Your task to perform on an android device: Show me productivity apps on the Play Store Image 0: 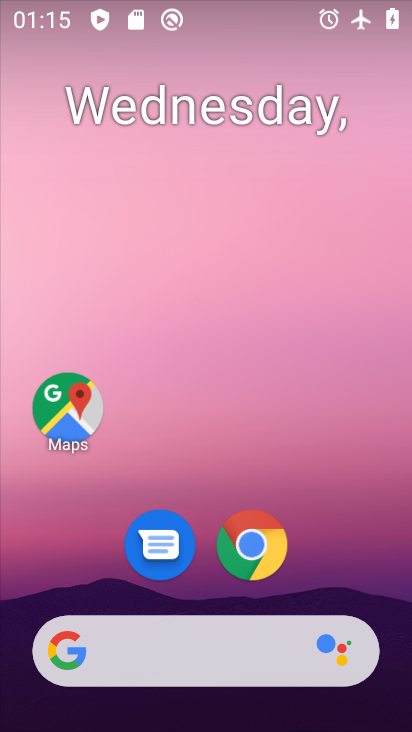
Step 0: drag from (333, 577) to (252, 120)
Your task to perform on an android device: Show me productivity apps on the Play Store Image 1: 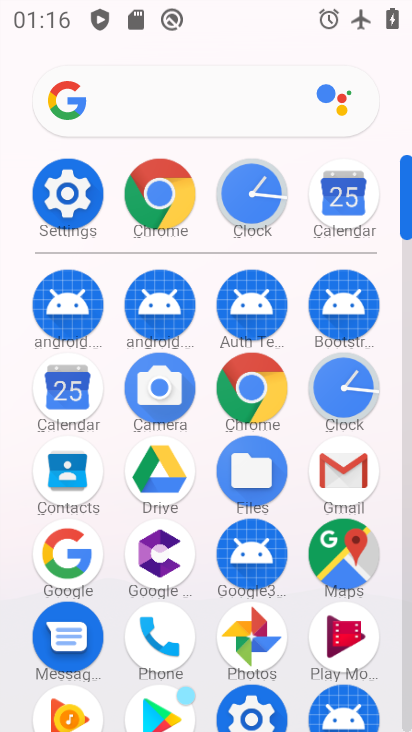
Step 1: drag from (207, 581) to (196, 79)
Your task to perform on an android device: Show me productivity apps on the Play Store Image 2: 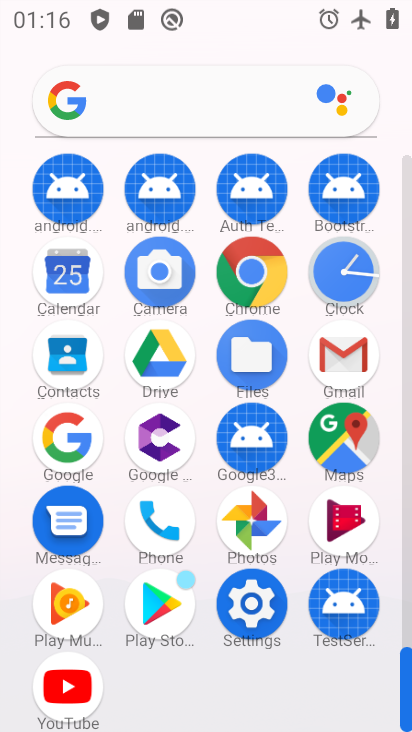
Step 2: click (160, 616)
Your task to perform on an android device: Show me productivity apps on the Play Store Image 3: 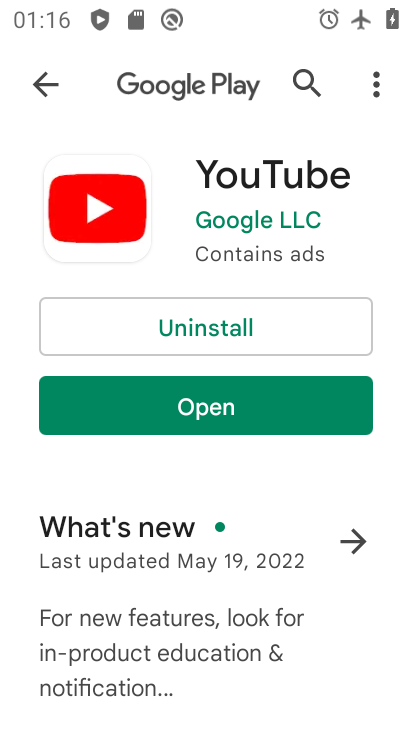
Step 3: click (23, 87)
Your task to perform on an android device: Show me productivity apps on the Play Store Image 4: 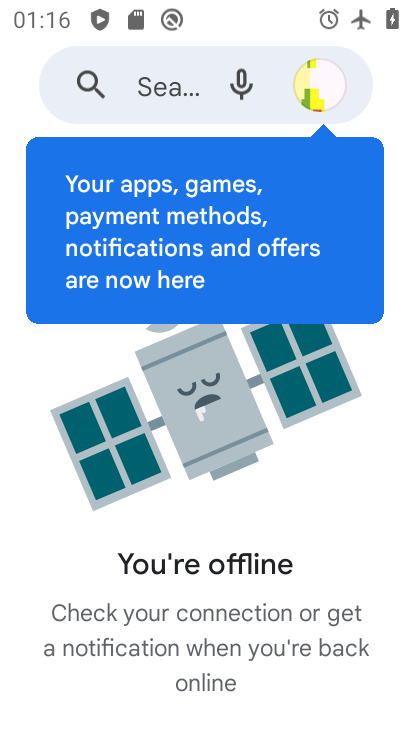
Step 4: task complete